Your task to perform on an android device: Open the Google play store app Image 0: 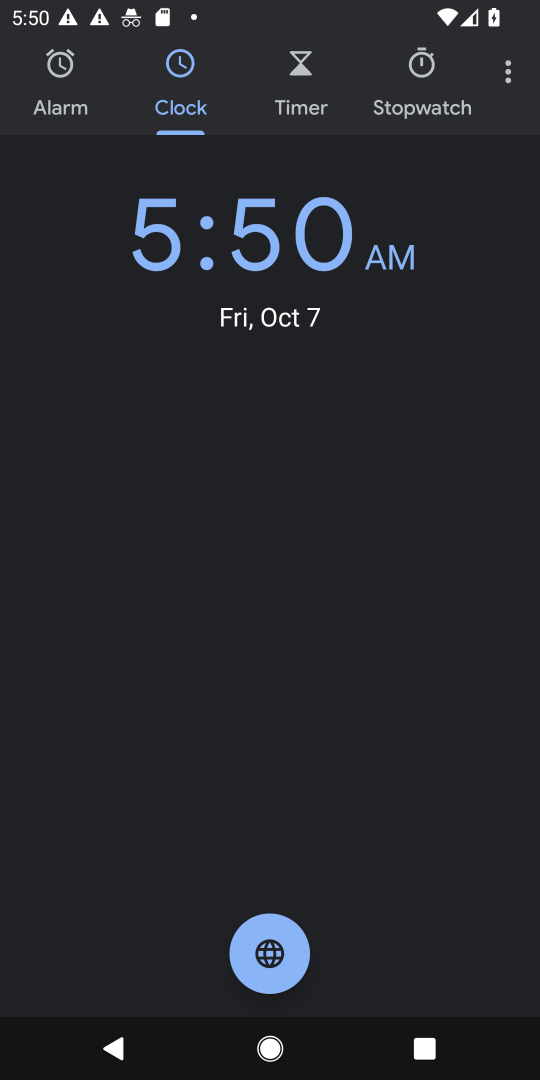
Step 0: press home button
Your task to perform on an android device: Open the Google play store app Image 1: 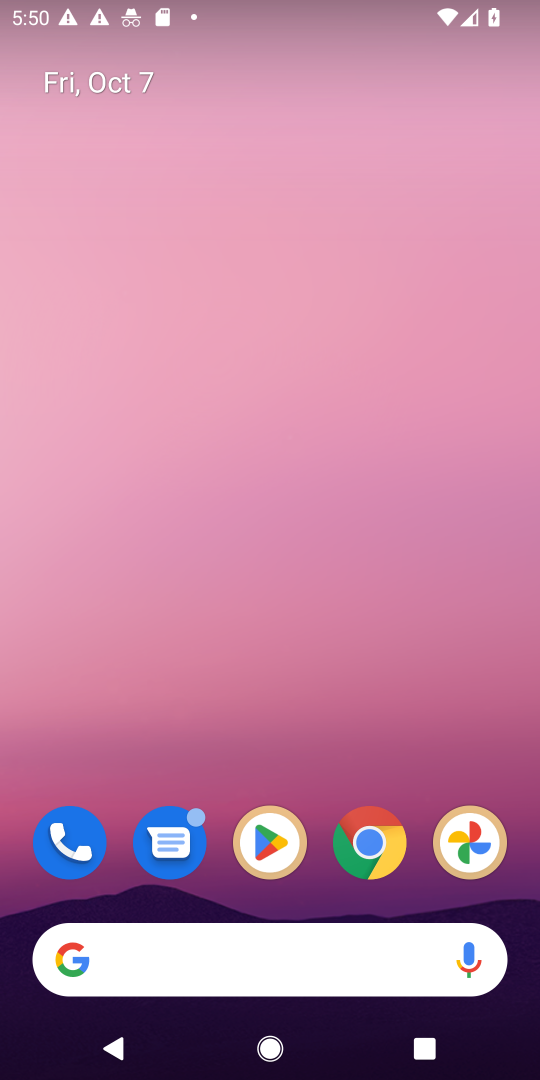
Step 1: click (266, 847)
Your task to perform on an android device: Open the Google play store app Image 2: 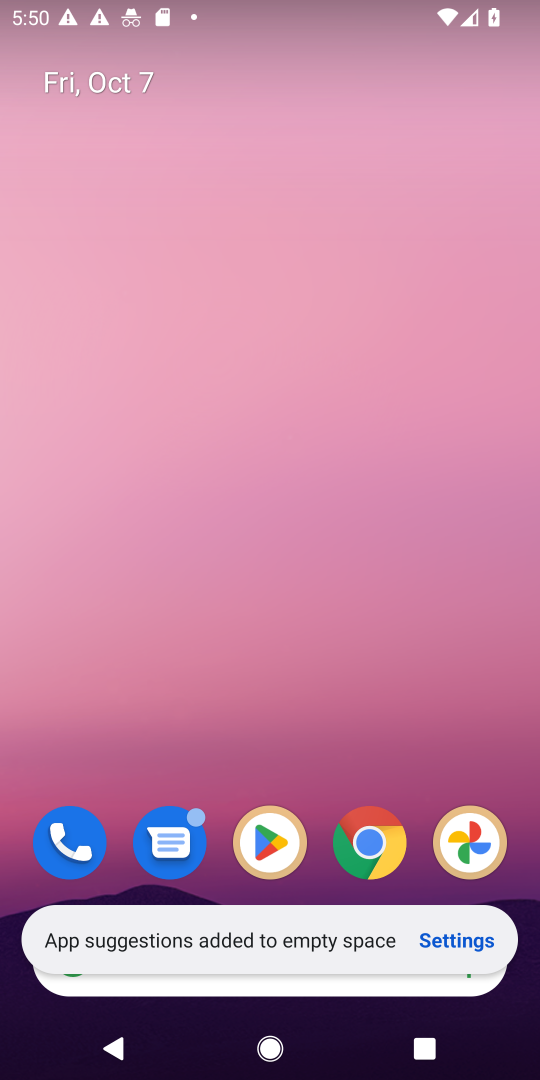
Step 2: click (266, 847)
Your task to perform on an android device: Open the Google play store app Image 3: 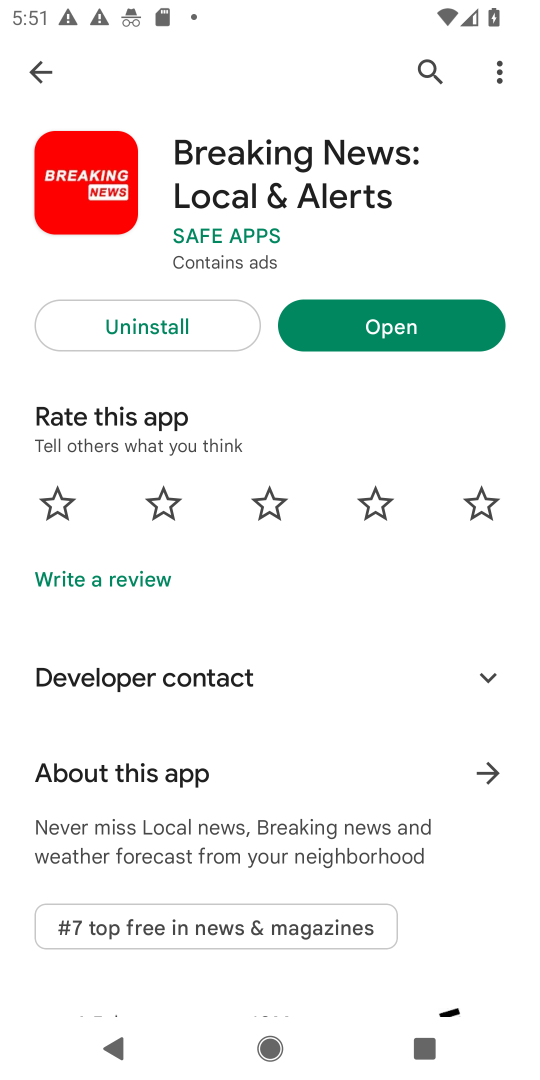
Step 3: task complete